Your task to perform on an android device: toggle notifications settings in the gmail app Image 0: 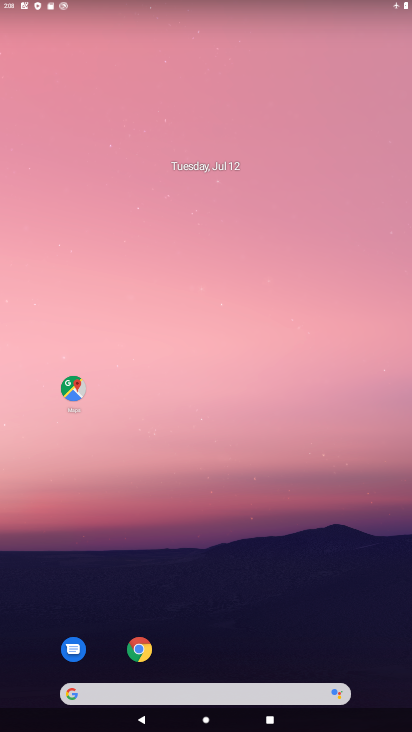
Step 0: drag from (279, 626) to (222, 12)
Your task to perform on an android device: toggle notifications settings in the gmail app Image 1: 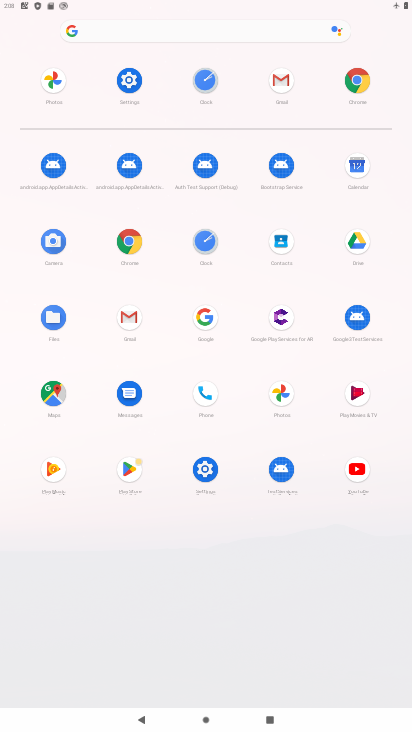
Step 1: click (279, 75)
Your task to perform on an android device: toggle notifications settings in the gmail app Image 2: 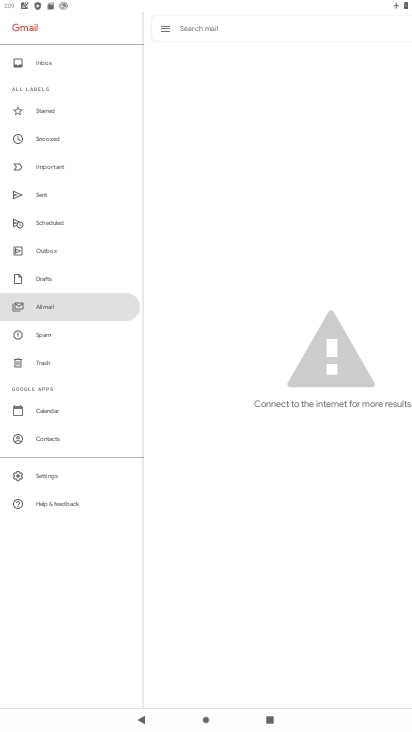
Step 2: click (17, 479)
Your task to perform on an android device: toggle notifications settings in the gmail app Image 3: 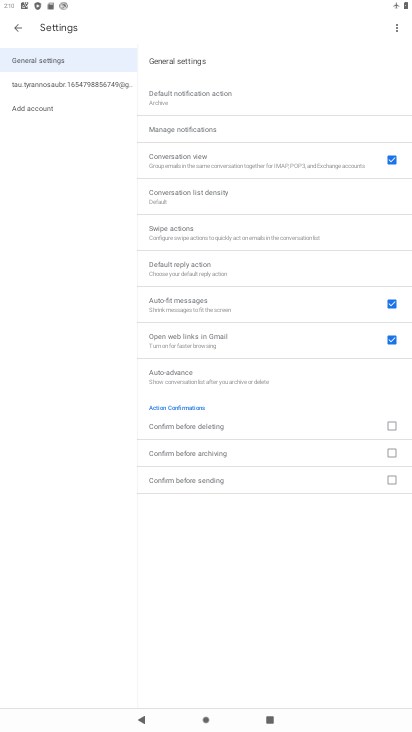
Step 3: click (217, 120)
Your task to perform on an android device: toggle notifications settings in the gmail app Image 4: 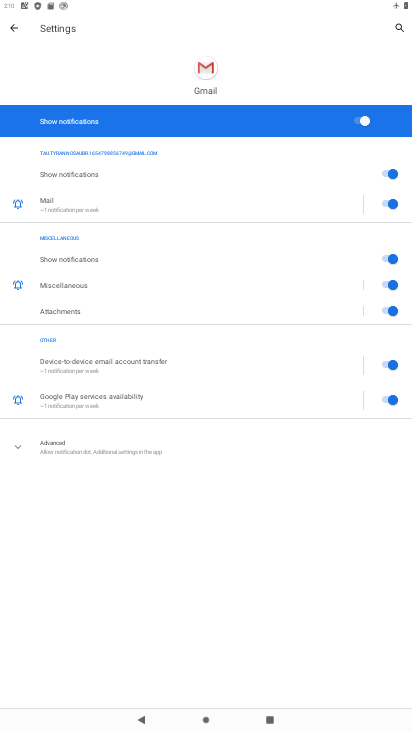
Step 4: task complete